Your task to perform on an android device: Show me recent news Image 0: 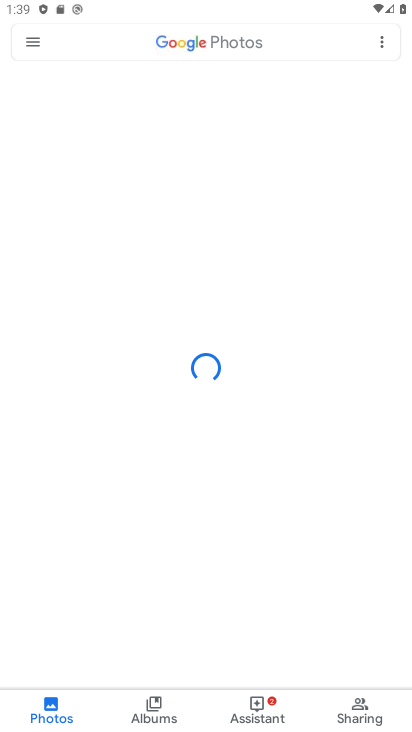
Step 0: press home button
Your task to perform on an android device: Show me recent news Image 1: 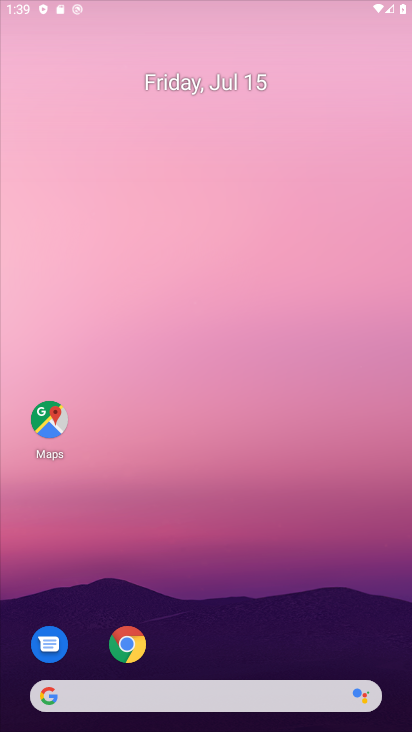
Step 1: drag from (390, 658) to (228, 39)
Your task to perform on an android device: Show me recent news Image 2: 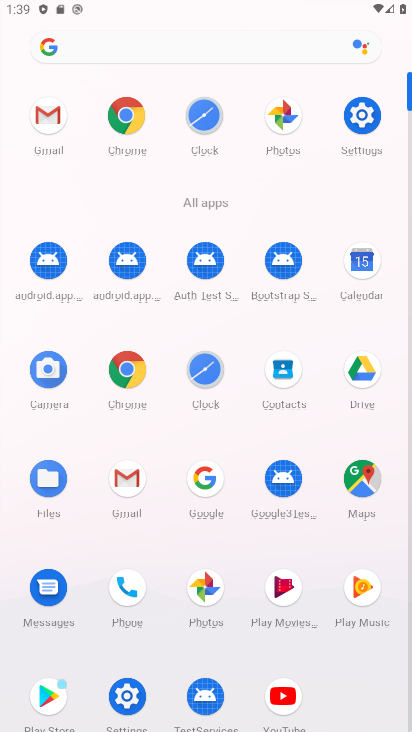
Step 2: click (199, 482)
Your task to perform on an android device: Show me recent news Image 3: 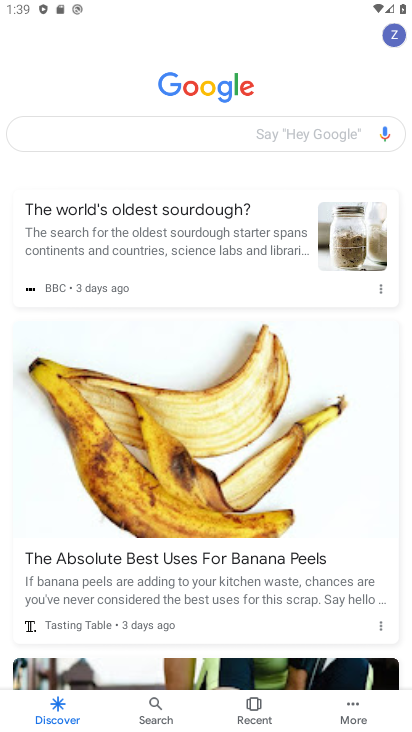
Step 3: click (286, 137)
Your task to perform on an android device: Show me recent news Image 4: 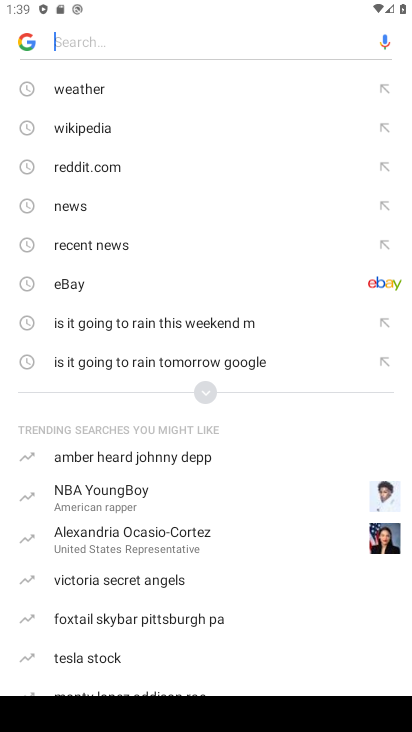
Step 4: type "Show me recent news"
Your task to perform on an android device: Show me recent news Image 5: 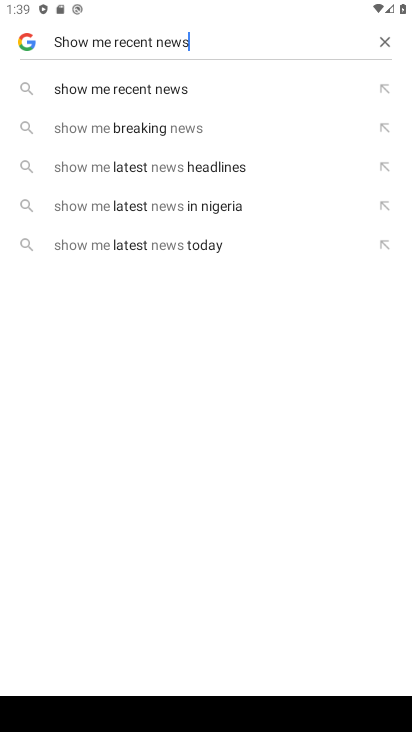
Step 5: click (100, 82)
Your task to perform on an android device: Show me recent news Image 6: 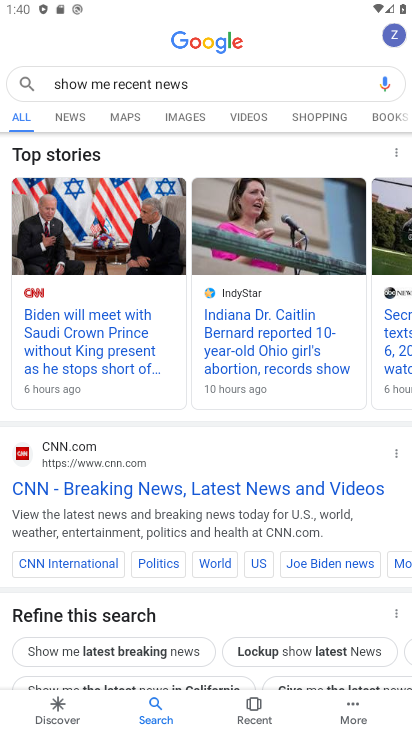
Step 6: task complete